Your task to perform on an android device: Open the web browser Image 0: 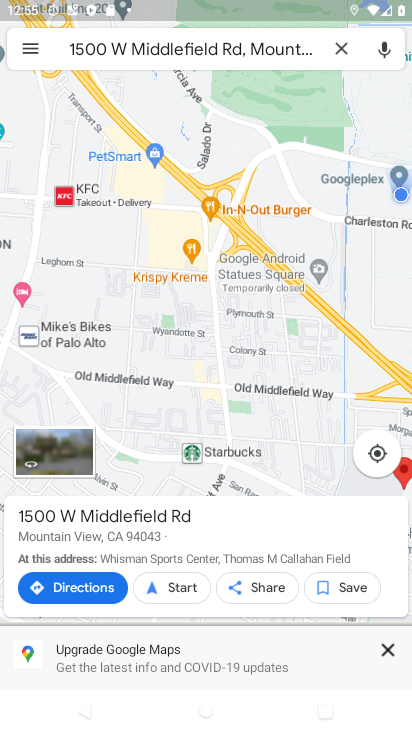
Step 0: press home button
Your task to perform on an android device: Open the web browser Image 1: 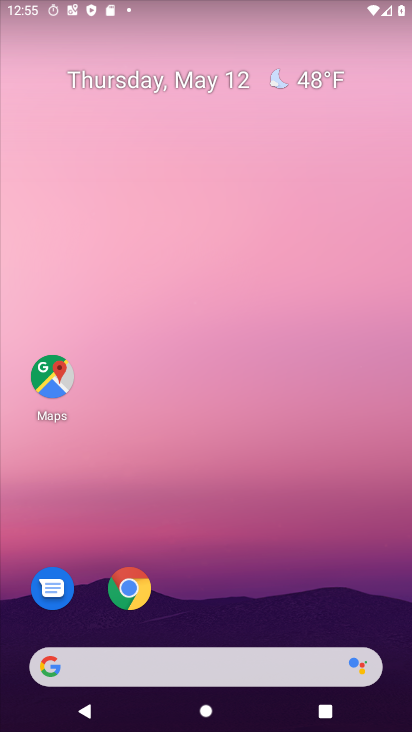
Step 1: drag from (221, 591) to (250, 46)
Your task to perform on an android device: Open the web browser Image 2: 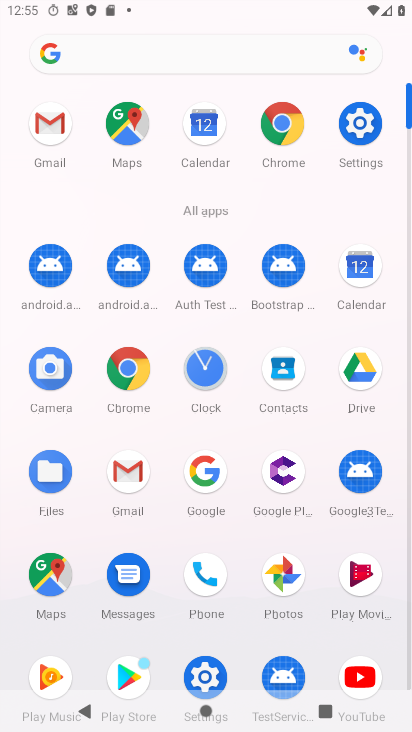
Step 2: click (207, 473)
Your task to perform on an android device: Open the web browser Image 3: 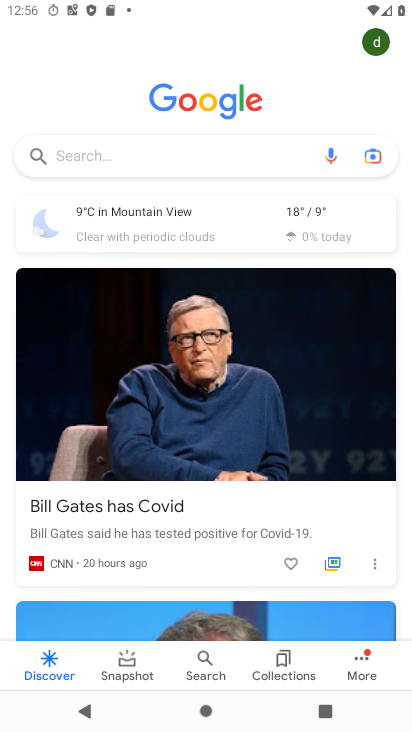
Step 3: task complete